Your task to perform on an android device: What's on my calendar today? Image 0: 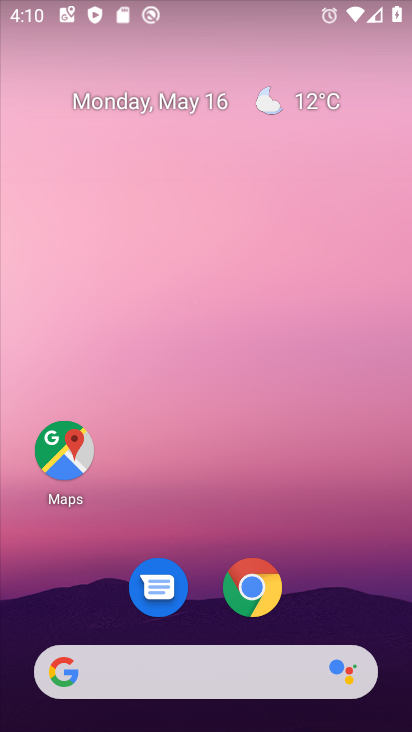
Step 0: drag from (394, 424) to (370, 242)
Your task to perform on an android device: What's on my calendar today? Image 1: 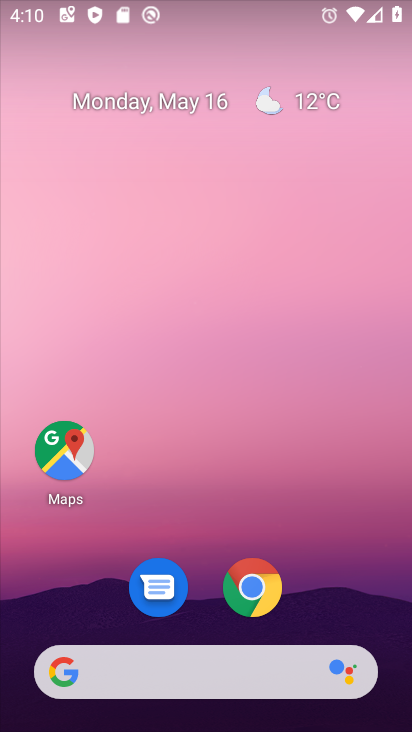
Step 1: drag from (387, 673) to (377, 263)
Your task to perform on an android device: What's on my calendar today? Image 2: 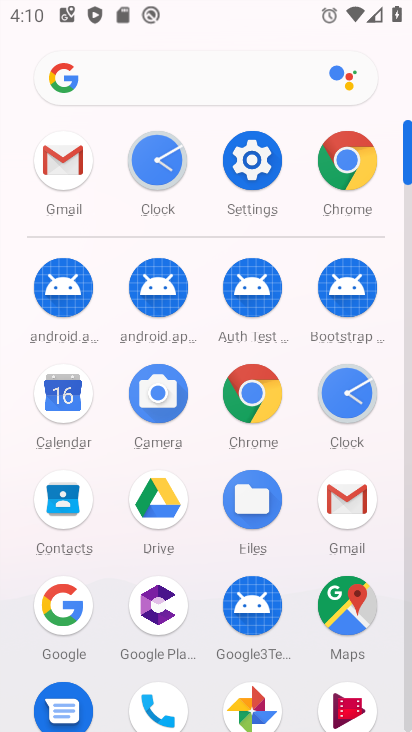
Step 2: click (70, 398)
Your task to perform on an android device: What's on my calendar today? Image 3: 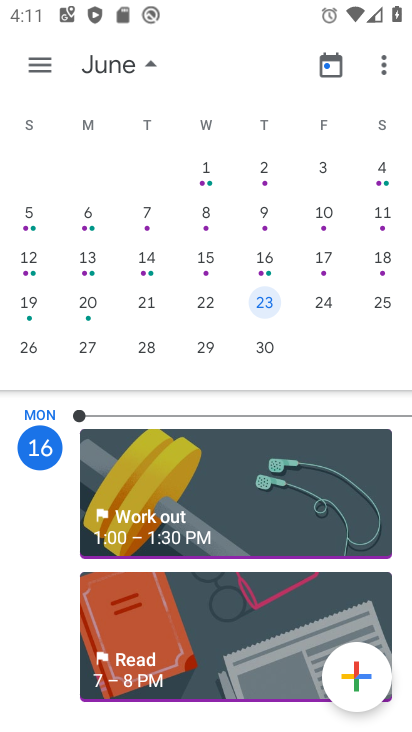
Step 3: drag from (58, 181) to (396, 119)
Your task to perform on an android device: What's on my calendar today? Image 4: 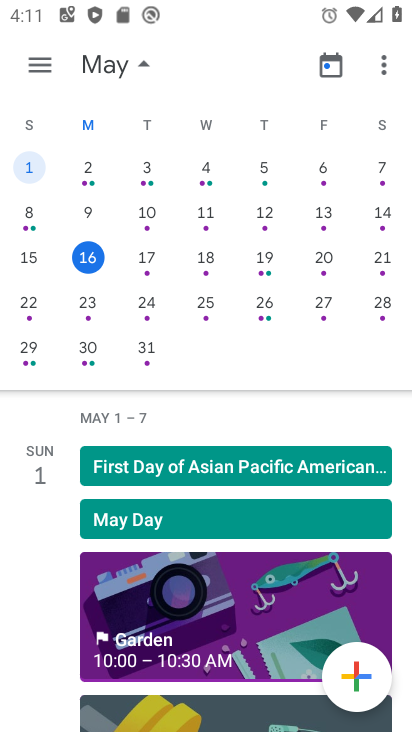
Step 4: drag from (35, 145) to (120, 150)
Your task to perform on an android device: What's on my calendar today? Image 5: 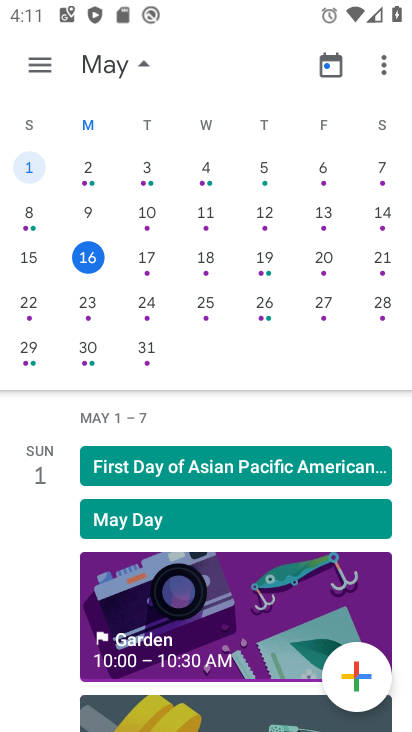
Step 5: click (86, 253)
Your task to perform on an android device: What's on my calendar today? Image 6: 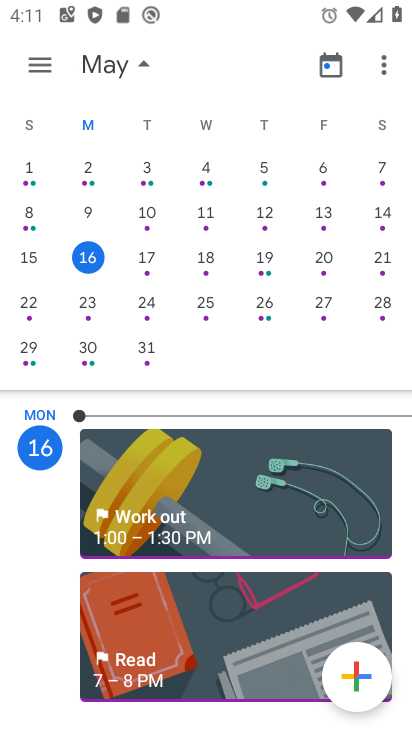
Step 6: task complete